Your task to perform on an android device: change text size in settings app Image 0: 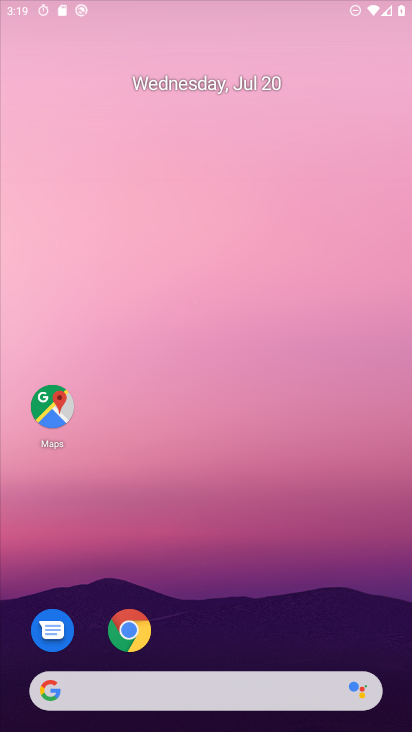
Step 0: drag from (303, 677) to (254, 108)
Your task to perform on an android device: change text size in settings app Image 1: 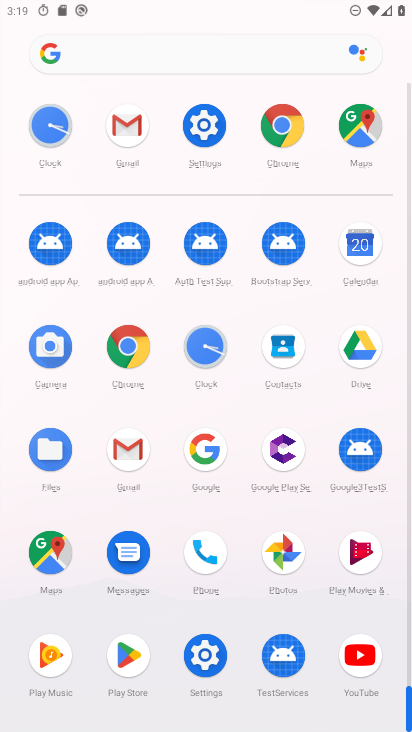
Step 1: click (207, 120)
Your task to perform on an android device: change text size in settings app Image 2: 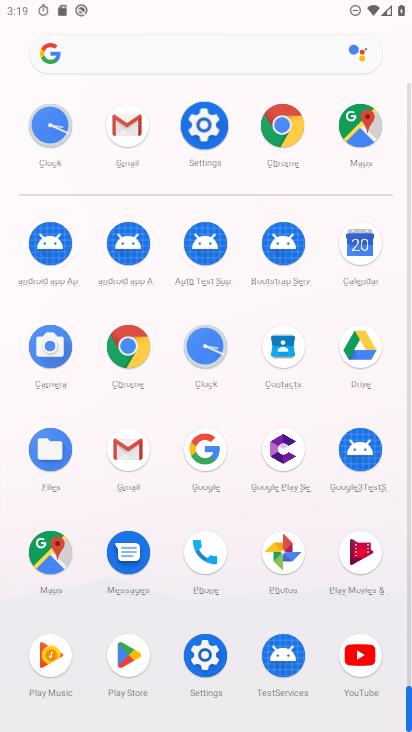
Step 2: click (208, 120)
Your task to perform on an android device: change text size in settings app Image 3: 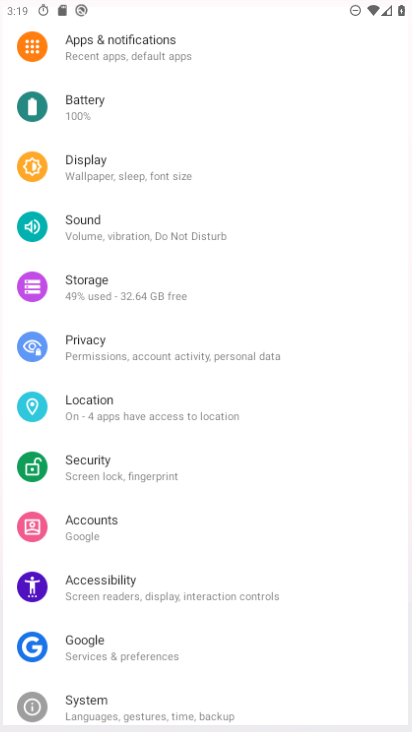
Step 3: click (215, 118)
Your task to perform on an android device: change text size in settings app Image 4: 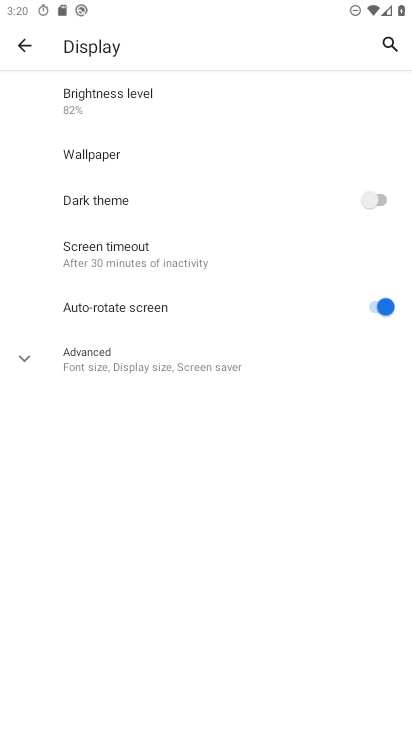
Step 4: click (100, 362)
Your task to perform on an android device: change text size in settings app Image 5: 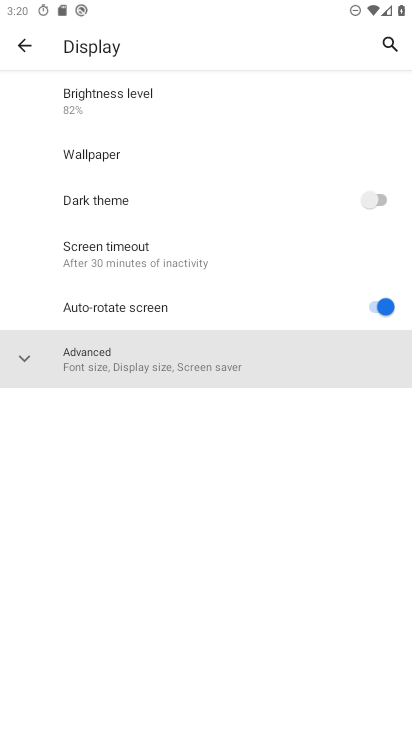
Step 5: click (106, 356)
Your task to perform on an android device: change text size in settings app Image 6: 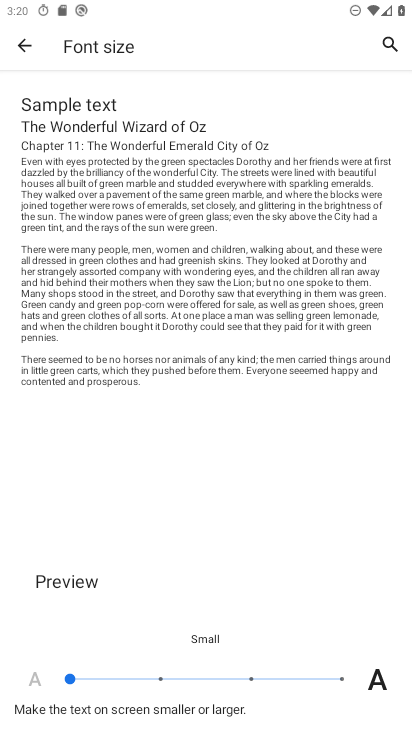
Step 6: click (333, 676)
Your task to perform on an android device: change text size in settings app Image 7: 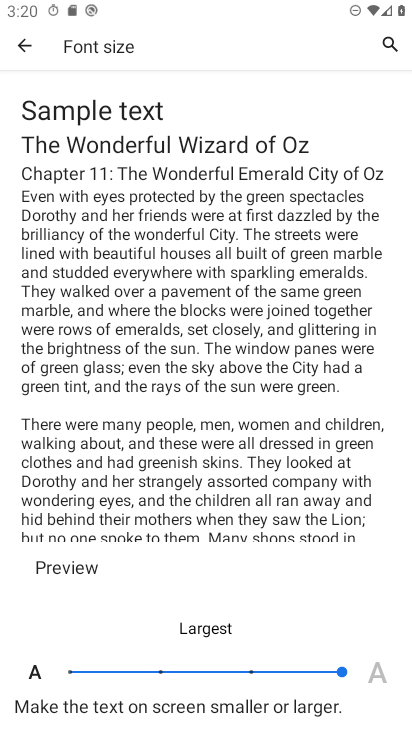
Step 7: task complete